Your task to perform on an android device: Open location settings Image 0: 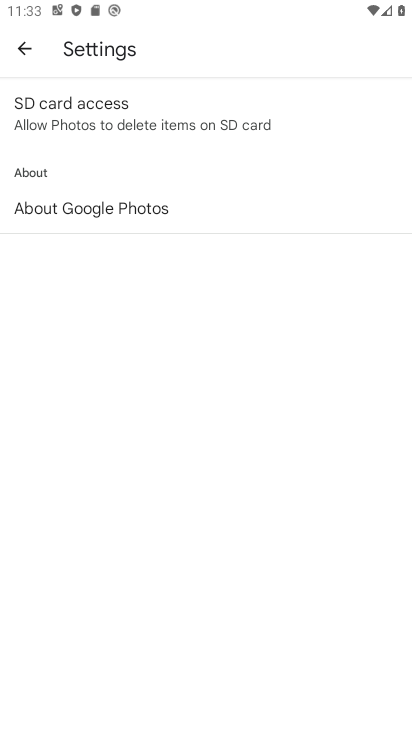
Step 0: press home button
Your task to perform on an android device: Open location settings Image 1: 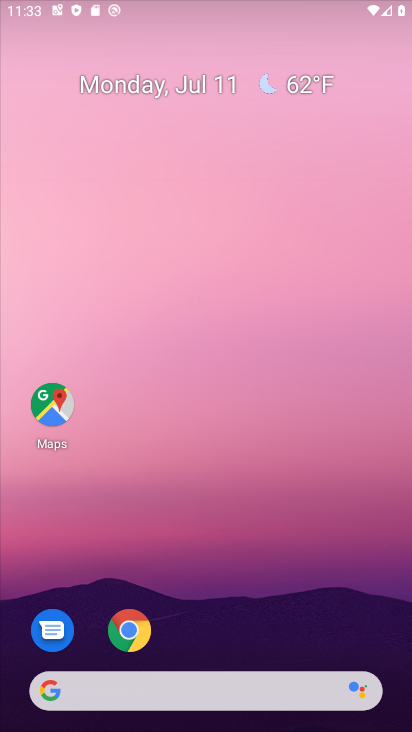
Step 1: drag from (258, 706) to (320, 1)
Your task to perform on an android device: Open location settings Image 2: 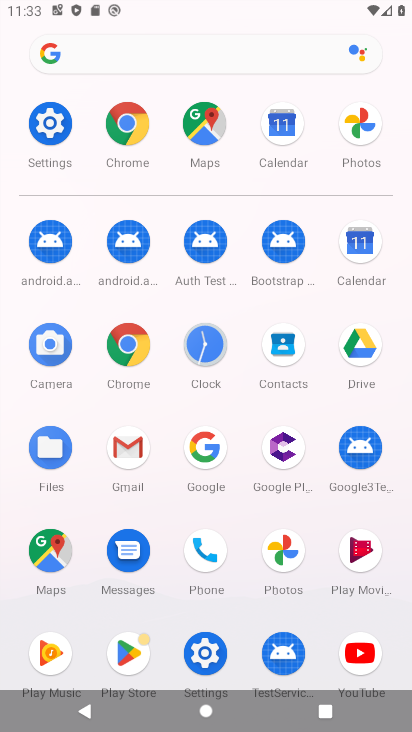
Step 2: click (42, 113)
Your task to perform on an android device: Open location settings Image 3: 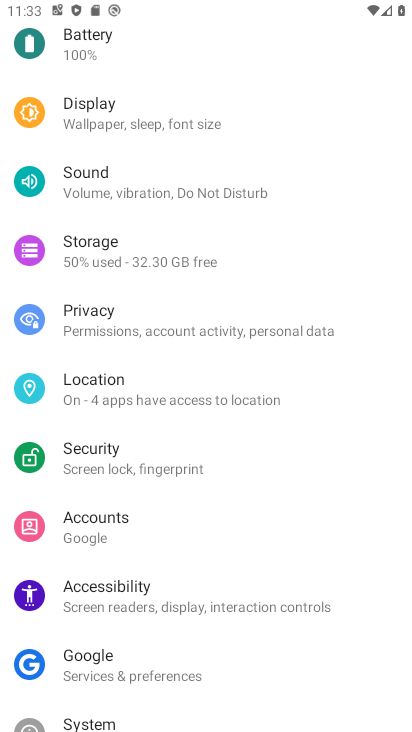
Step 3: click (110, 378)
Your task to perform on an android device: Open location settings Image 4: 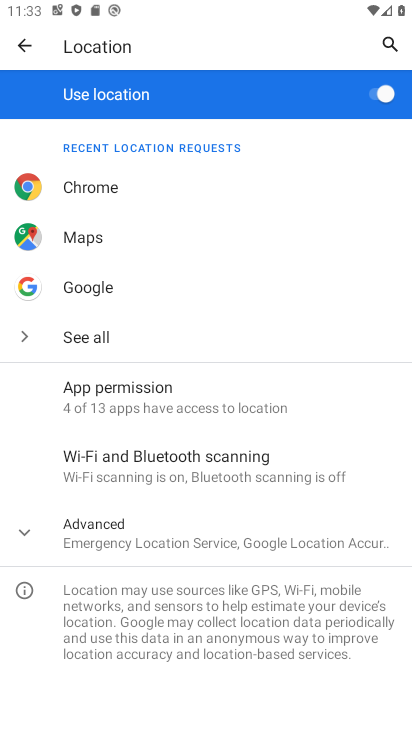
Step 4: task complete